Your task to perform on an android device: Open the calendar and show me this week's events? Image 0: 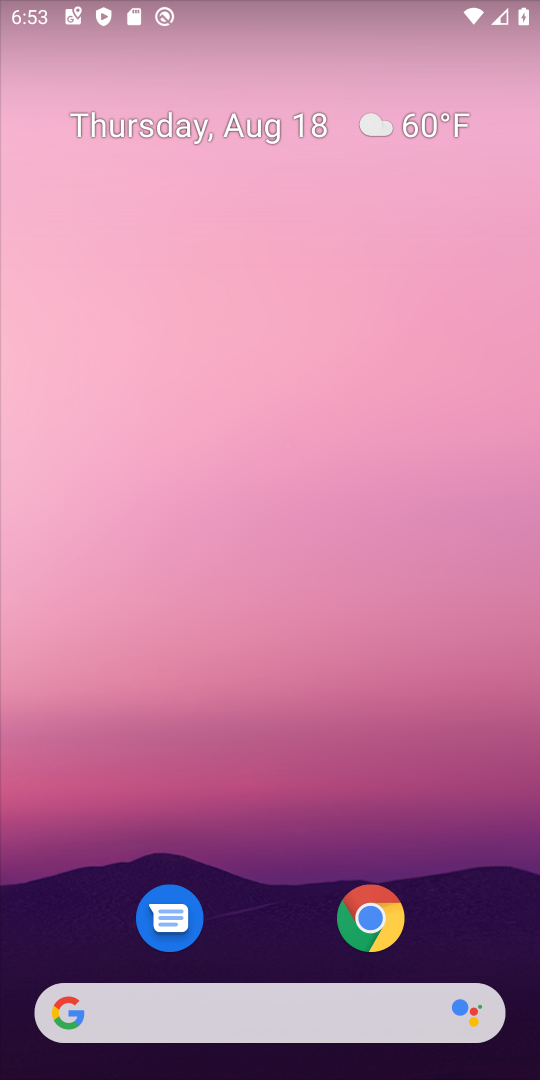
Step 0: press home button
Your task to perform on an android device: Open the calendar and show me this week's events? Image 1: 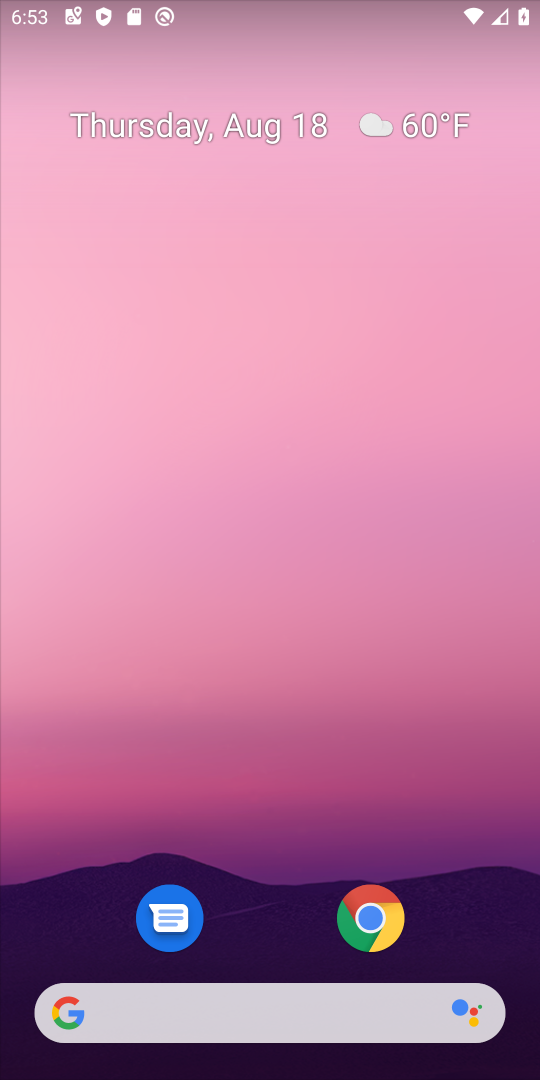
Step 1: drag from (254, 953) to (271, 3)
Your task to perform on an android device: Open the calendar and show me this week's events? Image 2: 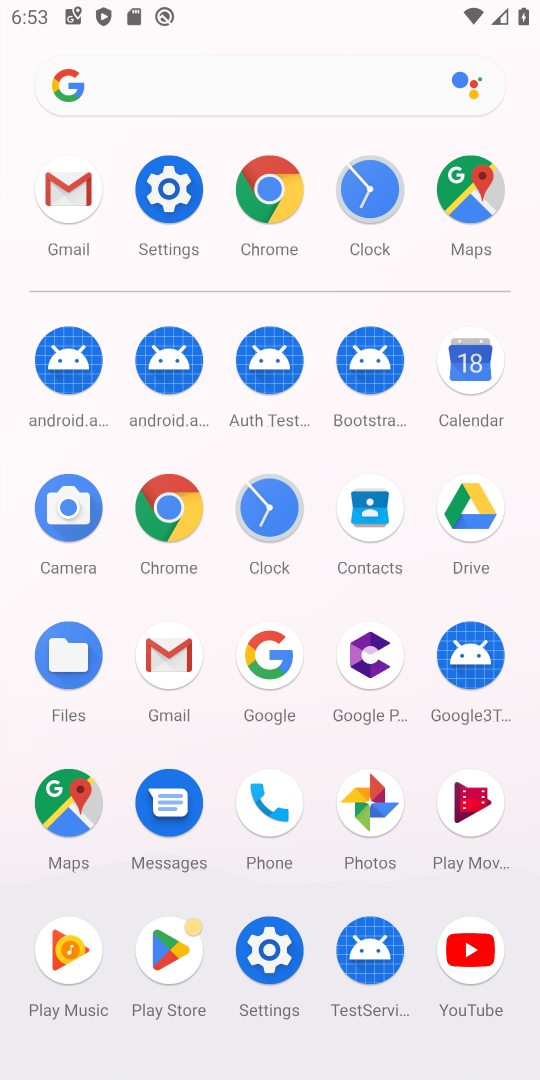
Step 2: click (465, 364)
Your task to perform on an android device: Open the calendar and show me this week's events? Image 3: 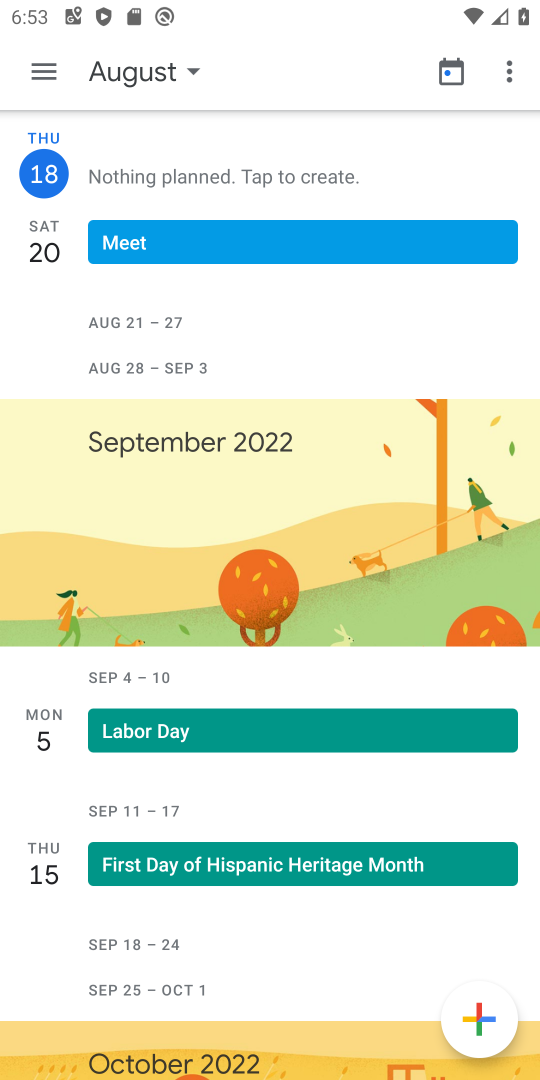
Step 3: click (39, 77)
Your task to perform on an android device: Open the calendar and show me this week's events? Image 4: 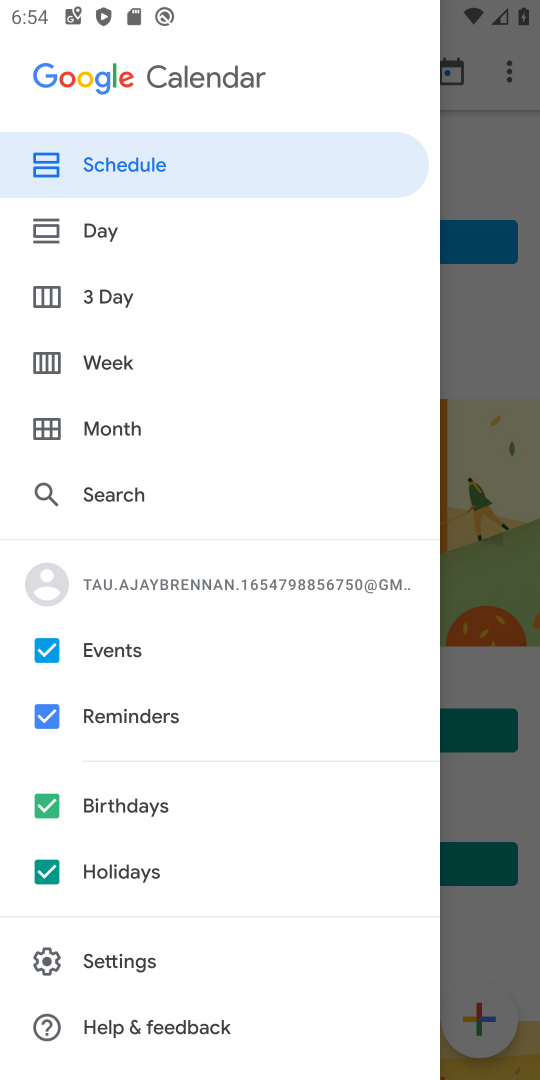
Step 4: click (96, 362)
Your task to perform on an android device: Open the calendar and show me this week's events? Image 5: 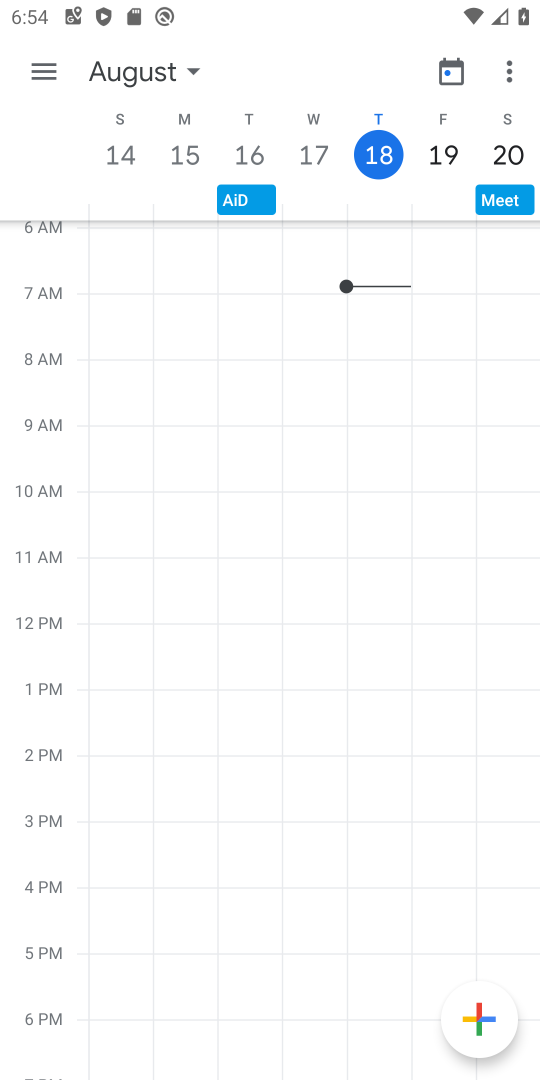
Step 5: task complete